Your task to perform on an android device: Open accessibility settings Image 0: 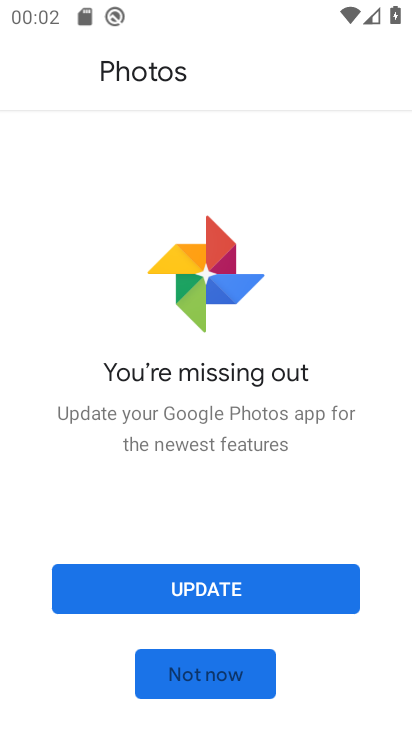
Step 0: press home button
Your task to perform on an android device: Open accessibility settings Image 1: 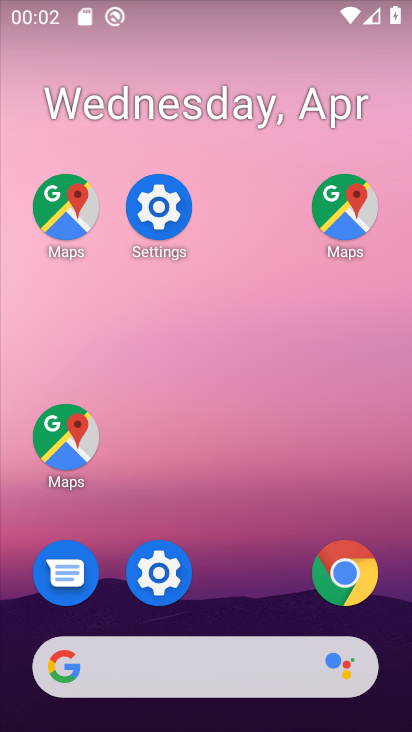
Step 1: drag from (130, 524) to (60, 125)
Your task to perform on an android device: Open accessibility settings Image 2: 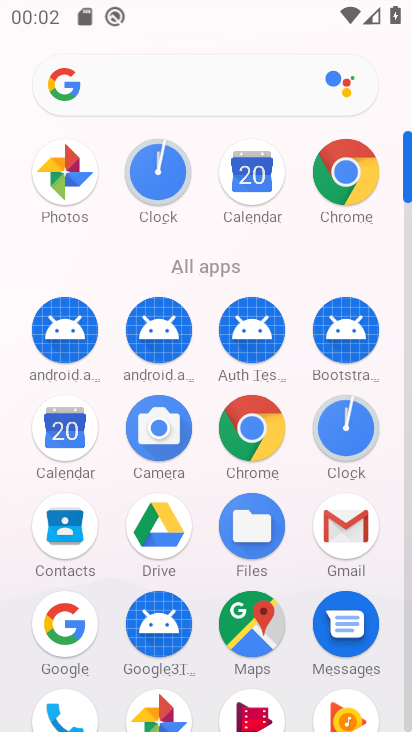
Step 2: drag from (280, 538) to (208, 220)
Your task to perform on an android device: Open accessibility settings Image 3: 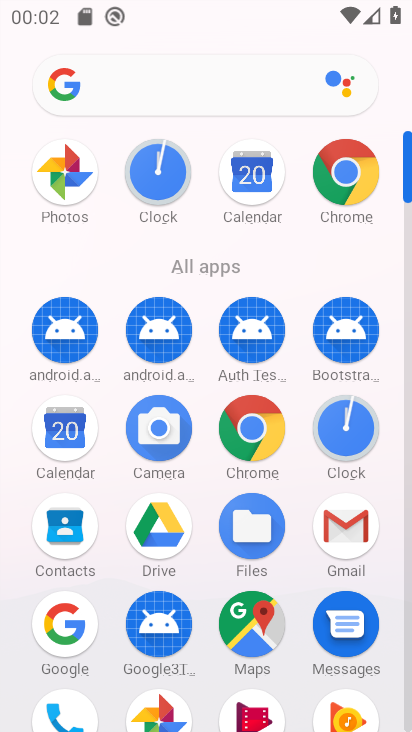
Step 3: drag from (207, 544) to (178, 224)
Your task to perform on an android device: Open accessibility settings Image 4: 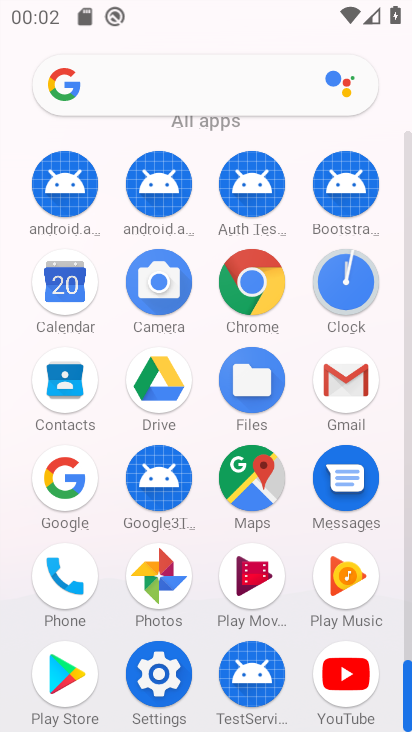
Step 4: click (168, 670)
Your task to perform on an android device: Open accessibility settings Image 5: 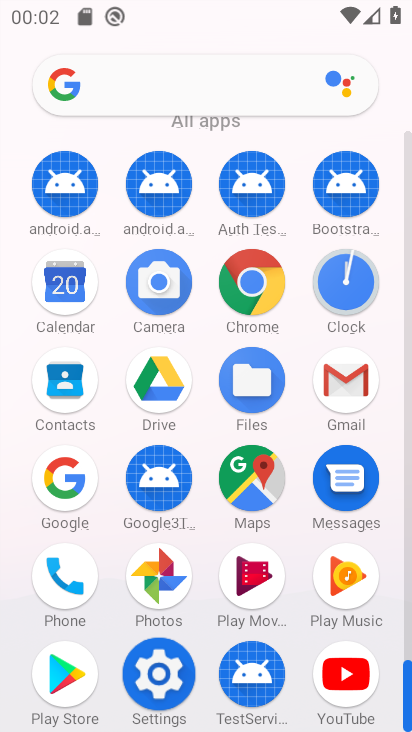
Step 5: click (168, 670)
Your task to perform on an android device: Open accessibility settings Image 6: 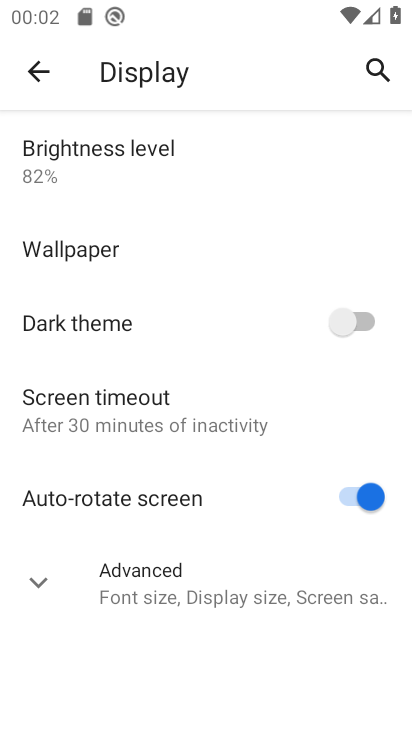
Step 6: drag from (219, 598) to (149, 432)
Your task to perform on an android device: Open accessibility settings Image 7: 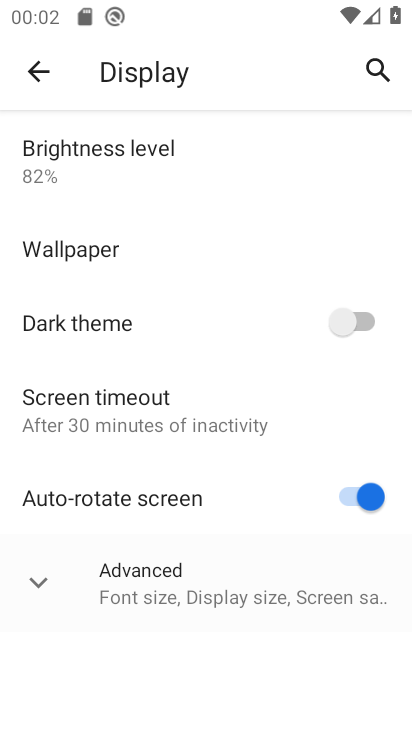
Step 7: click (31, 69)
Your task to perform on an android device: Open accessibility settings Image 8: 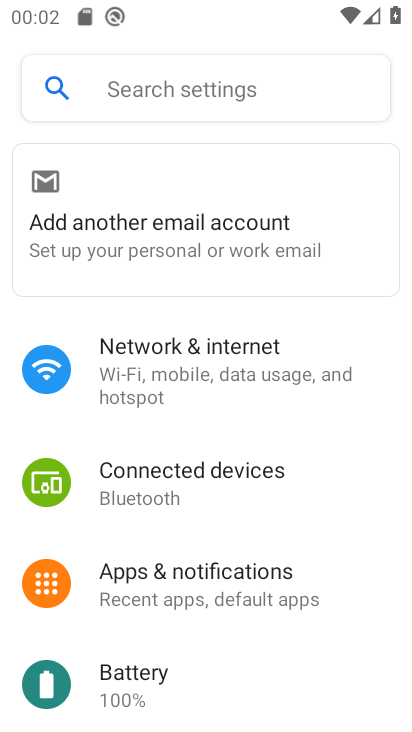
Step 8: drag from (126, 310) to (118, 258)
Your task to perform on an android device: Open accessibility settings Image 9: 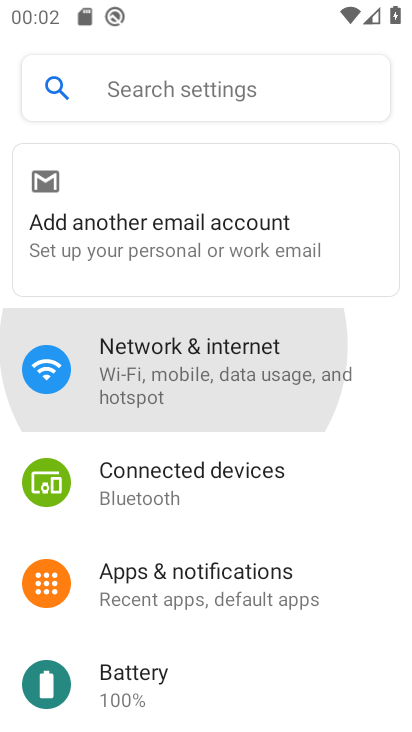
Step 9: drag from (112, 339) to (111, 288)
Your task to perform on an android device: Open accessibility settings Image 10: 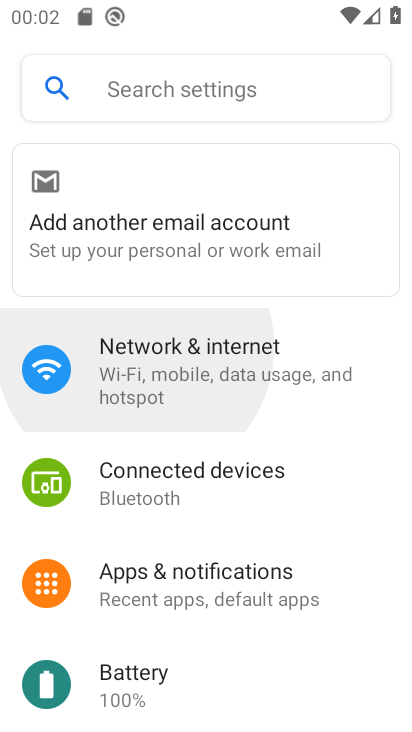
Step 10: drag from (122, 448) to (98, 183)
Your task to perform on an android device: Open accessibility settings Image 11: 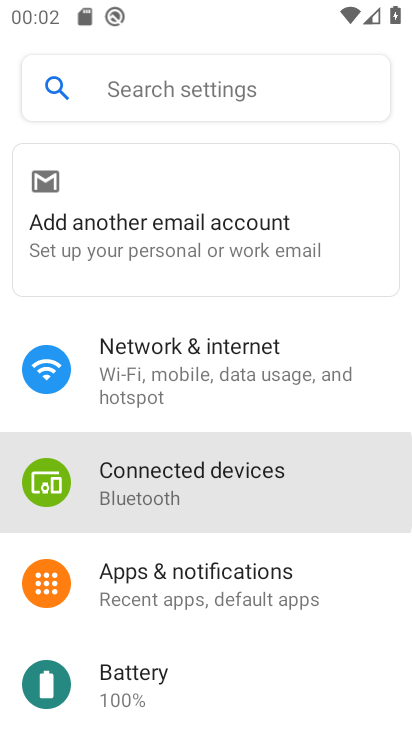
Step 11: drag from (152, 287) to (151, 149)
Your task to perform on an android device: Open accessibility settings Image 12: 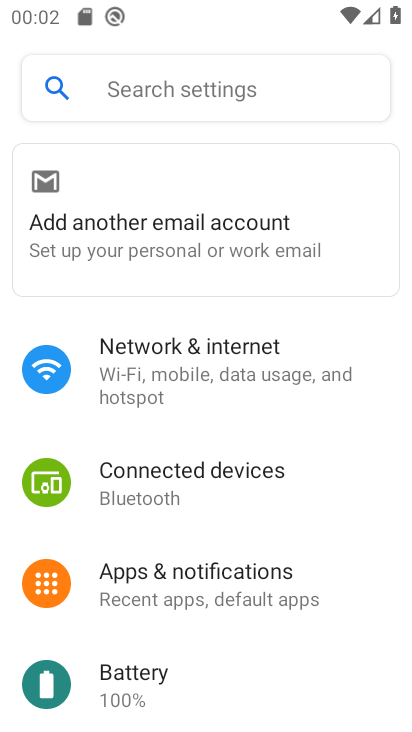
Step 12: drag from (173, 552) to (143, 217)
Your task to perform on an android device: Open accessibility settings Image 13: 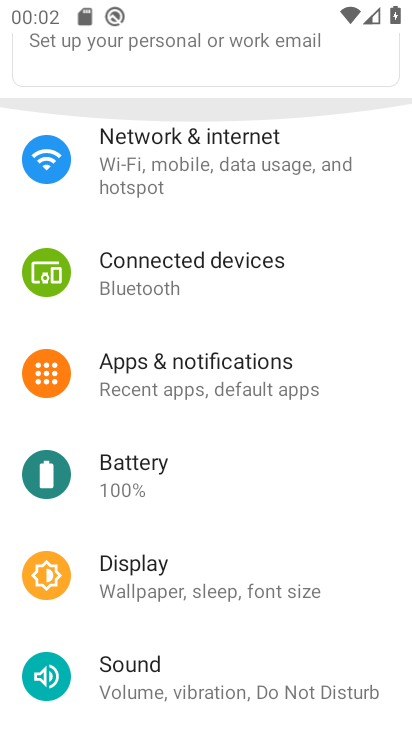
Step 13: drag from (213, 430) to (214, 226)
Your task to perform on an android device: Open accessibility settings Image 14: 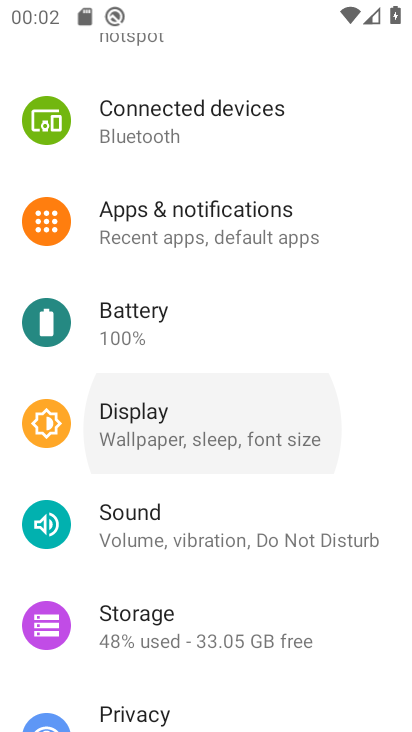
Step 14: drag from (189, 449) to (189, 312)
Your task to perform on an android device: Open accessibility settings Image 15: 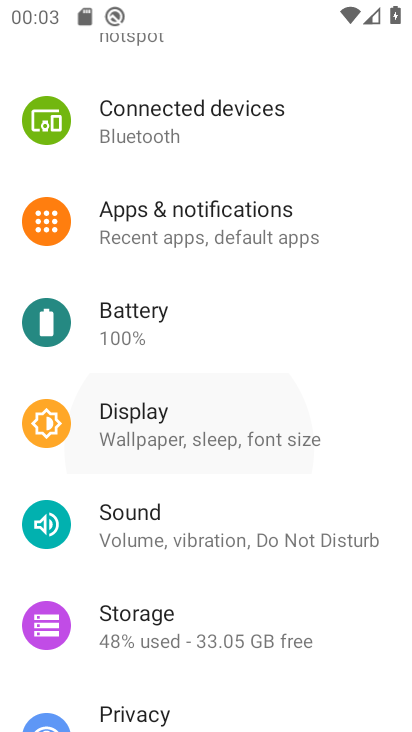
Step 15: drag from (211, 616) to (211, 201)
Your task to perform on an android device: Open accessibility settings Image 16: 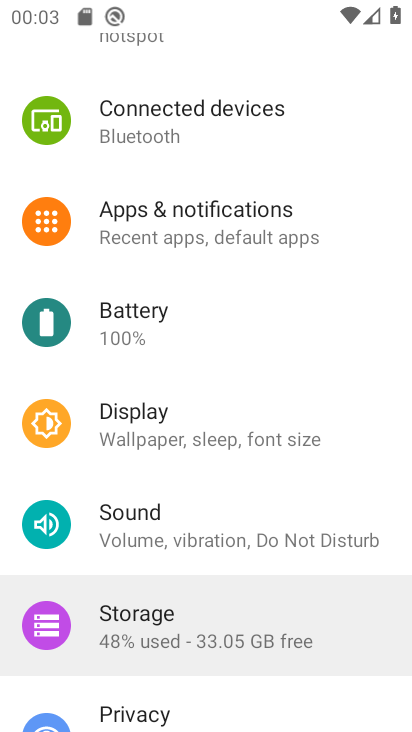
Step 16: drag from (220, 614) to (212, 337)
Your task to perform on an android device: Open accessibility settings Image 17: 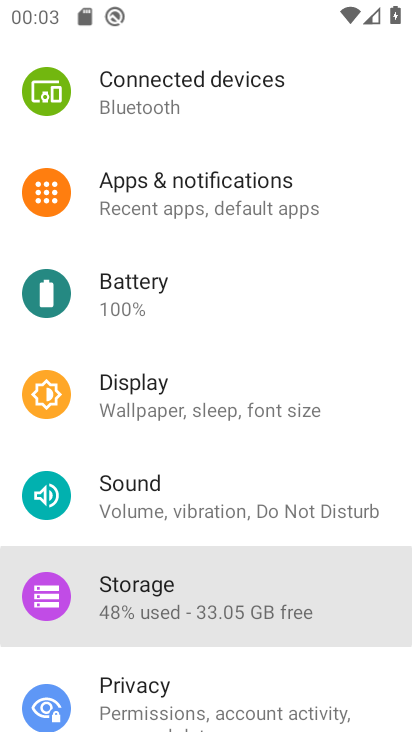
Step 17: drag from (153, 340) to (153, 242)
Your task to perform on an android device: Open accessibility settings Image 18: 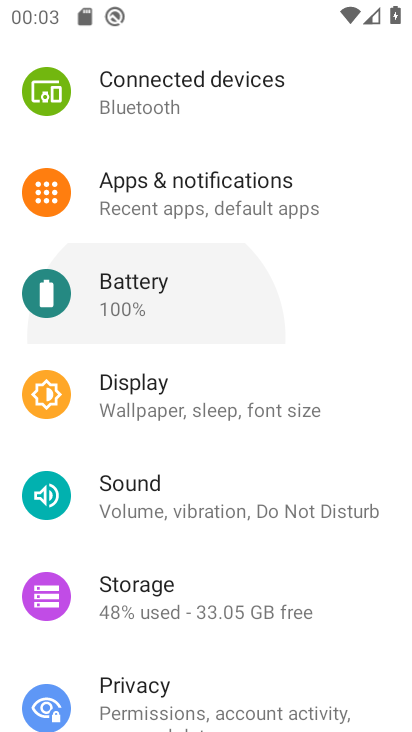
Step 18: drag from (181, 599) to (166, 167)
Your task to perform on an android device: Open accessibility settings Image 19: 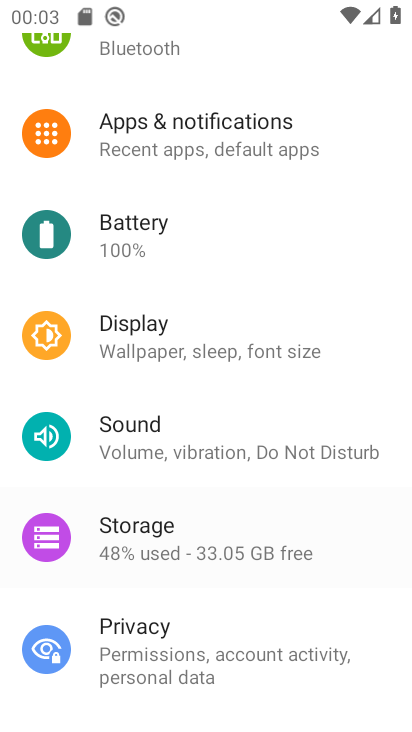
Step 19: drag from (236, 496) to (243, 102)
Your task to perform on an android device: Open accessibility settings Image 20: 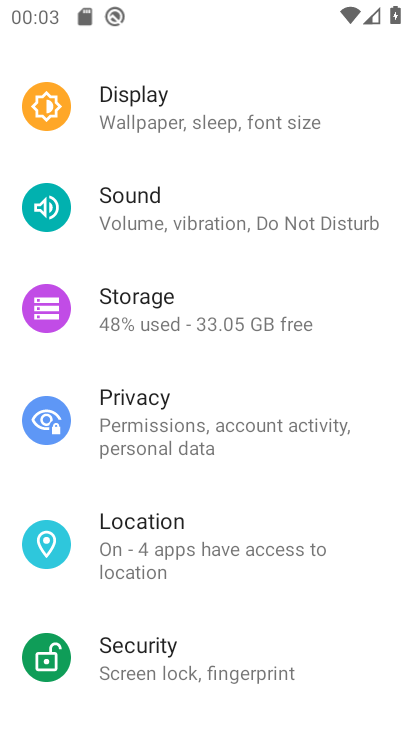
Step 20: drag from (240, 110) to (250, 19)
Your task to perform on an android device: Open accessibility settings Image 21: 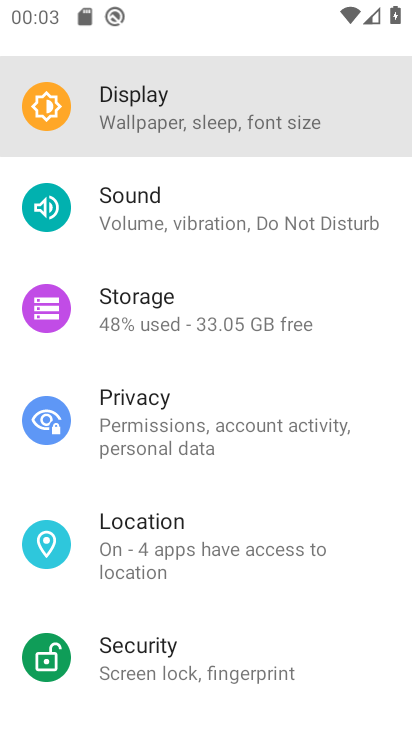
Step 21: drag from (126, 486) to (169, 291)
Your task to perform on an android device: Open accessibility settings Image 22: 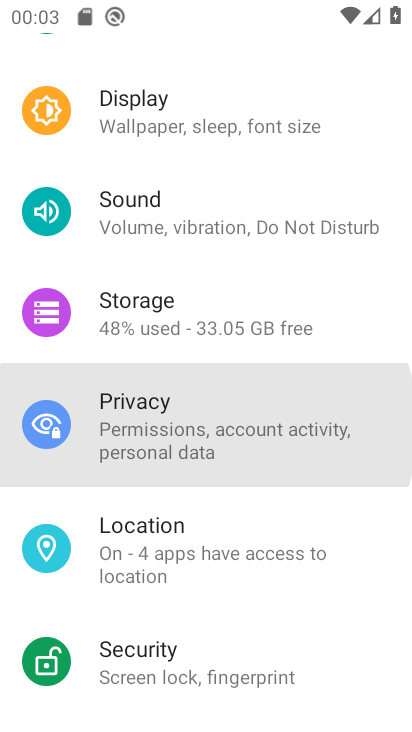
Step 22: drag from (160, 545) to (154, 215)
Your task to perform on an android device: Open accessibility settings Image 23: 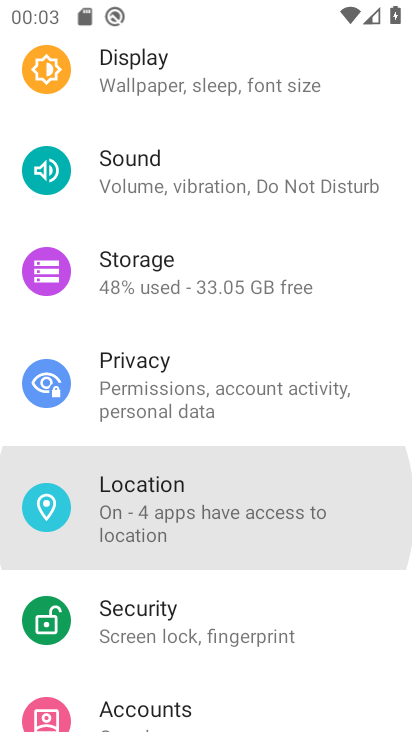
Step 23: drag from (134, 449) to (141, 292)
Your task to perform on an android device: Open accessibility settings Image 24: 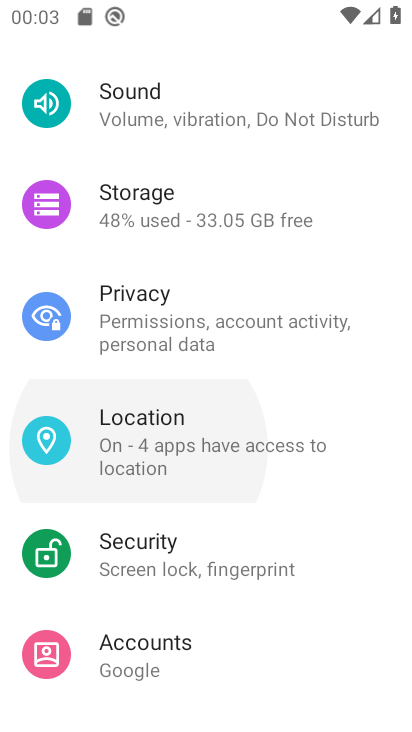
Step 24: drag from (181, 663) to (180, 311)
Your task to perform on an android device: Open accessibility settings Image 25: 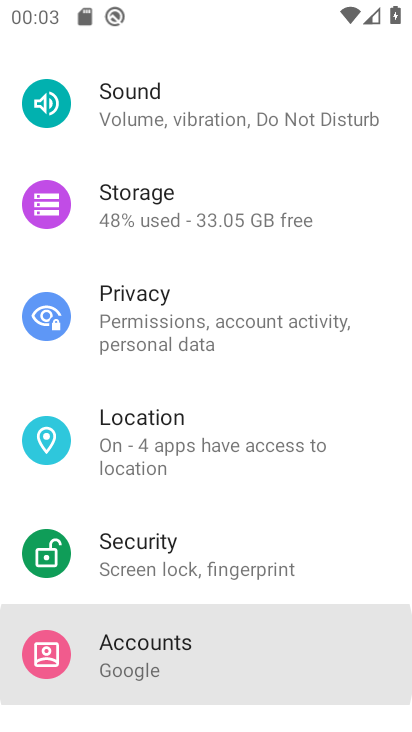
Step 25: drag from (204, 523) to (192, 284)
Your task to perform on an android device: Open accessibility settings Image 26: 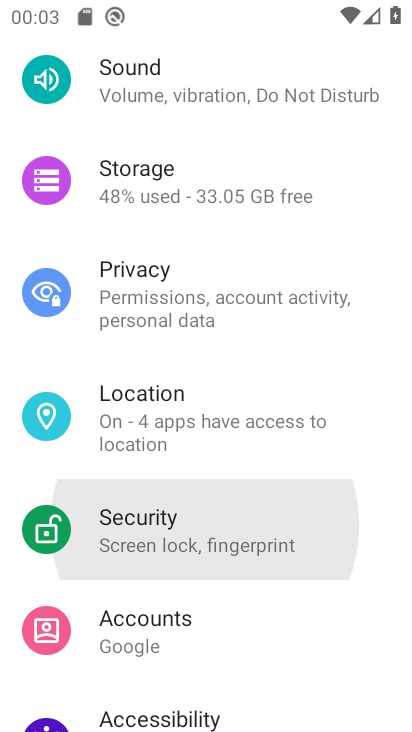
Step 26: click (162, 230)
Your task to perform on an android device: Open accessibility settings Image 27: 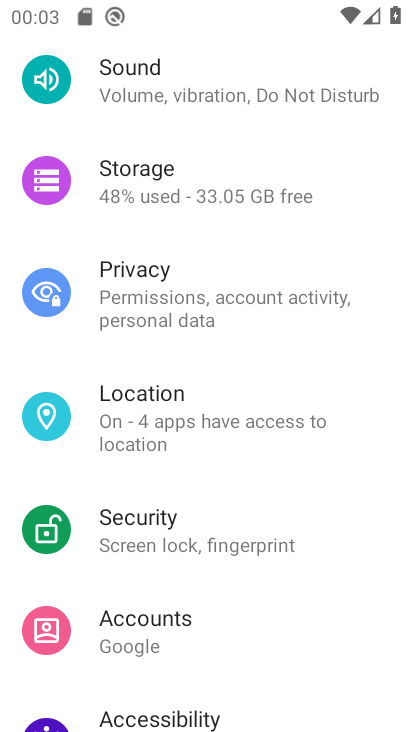
Step 27: click (178, 274)
Your task to perform on an android device: Open accessibility settings Image 28: 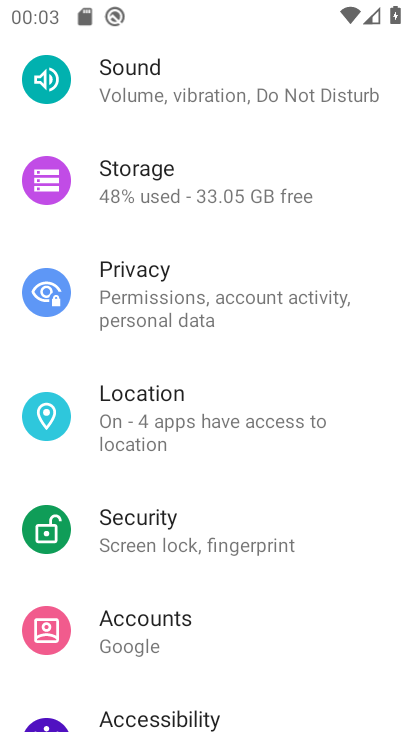
Step 28: drag from (160, 469) to (154, 332)
Your task to perform on an android device: Open accessibility settings Image 29: 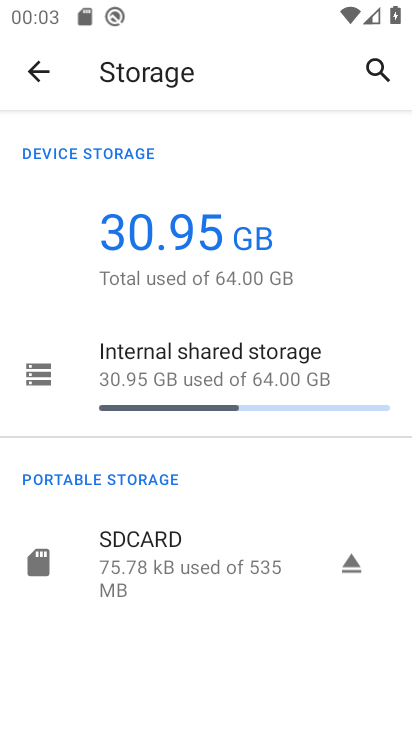
Step 29: drag from (160, 449) to (172, 305)
Your task to perform on an android device: Open accessibility settings Image 30: 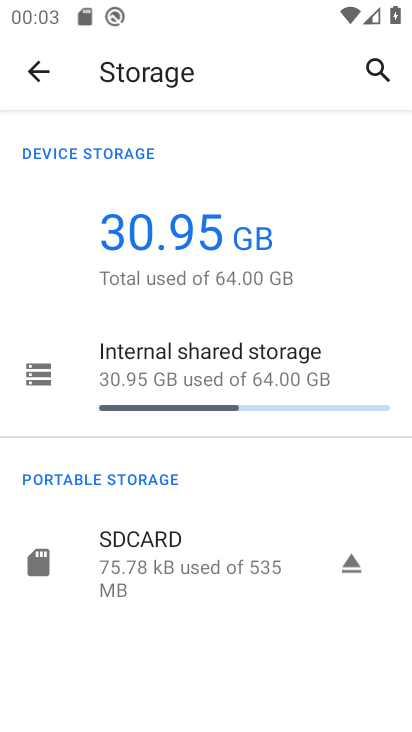
Step 30: click (33, 70)
Your task to perform on an android device: Open accessibility settings Image 31: 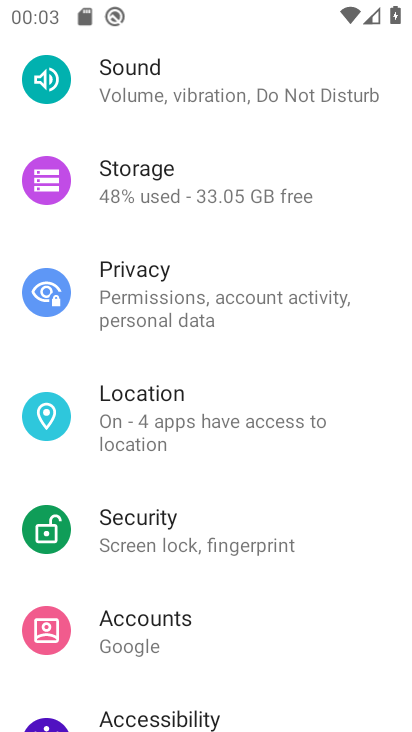
Step 31: drag from (185, 344) to (185, 231)
Your task to perform on an android device: Open accessibility settings Image 32: 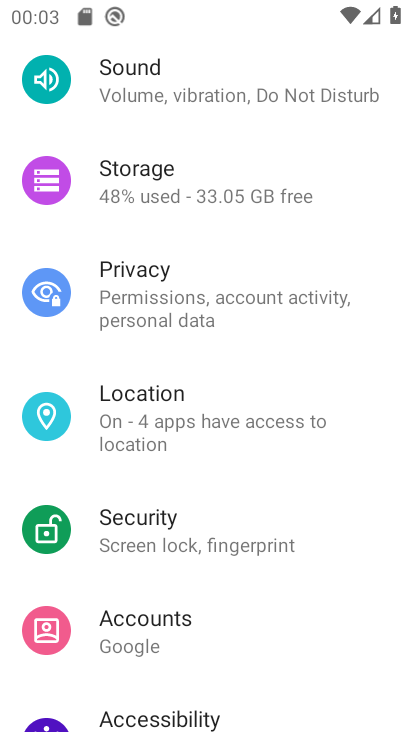
Step 32: click (156, 711)
Your task to perform on an android device: Open accessibility settings Image 33: 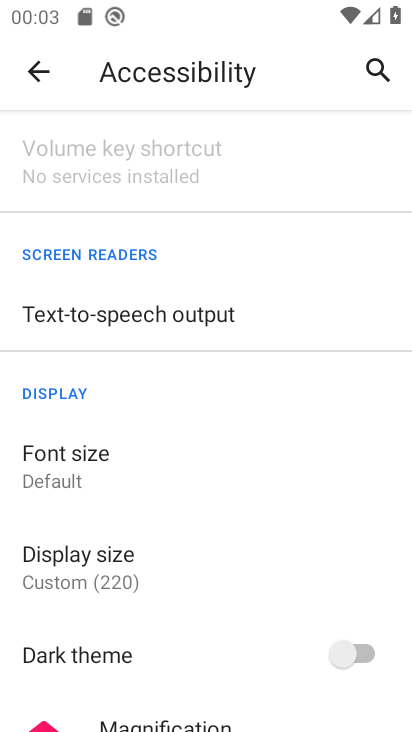
Step 33: task complete